Your task to perform on an android device: turn off notifications settings in the gmail app Image 0: 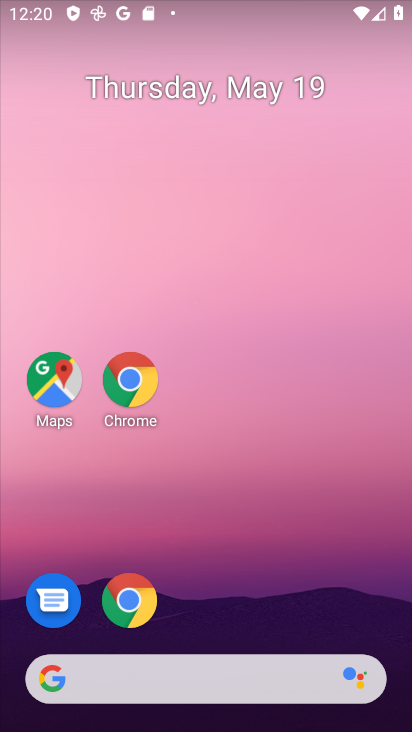
Step 0: drag from (322, 557) to (174, 40)
Your task to perform on an android device: turn off notifications settings in the gmail app Image 1: 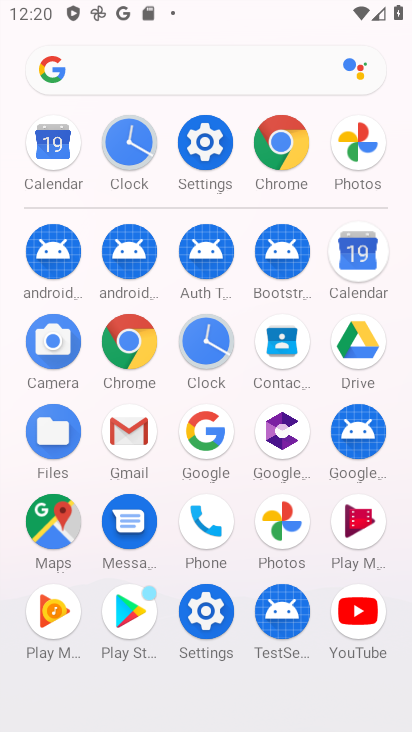
Step 1: click (119, 433)
Your task to perform on an android device: turn off notifications settings in the gmail app Image 2: 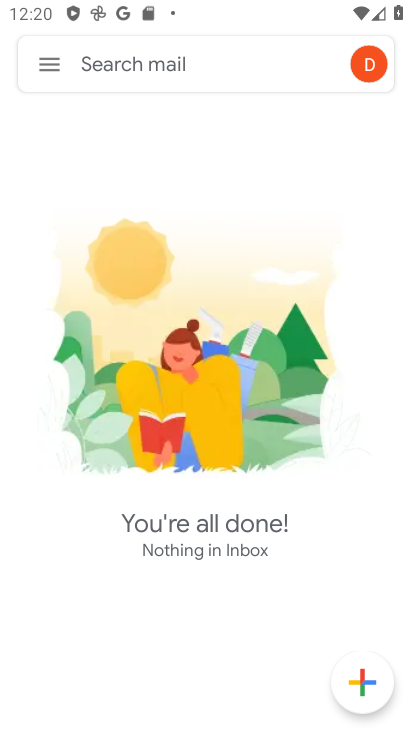
Step 2: click (58, 68)
Your task to perform on an android device: turn off notifications settings in the gmail app Image 3: 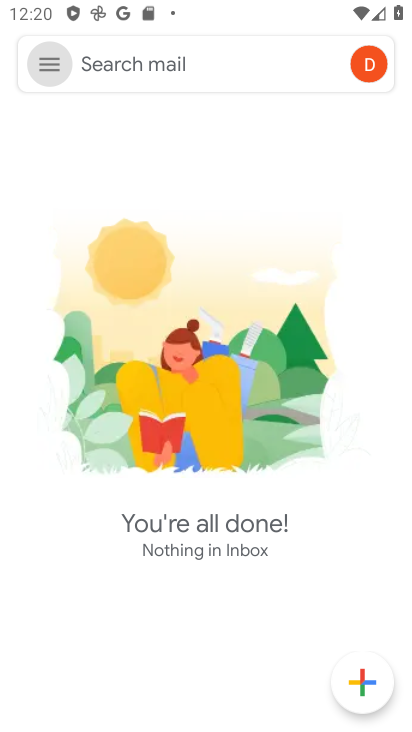
Step 3: click (54, 74)
Your task to perform on an android device: turn off notifications settings in the gmail app Image 4: 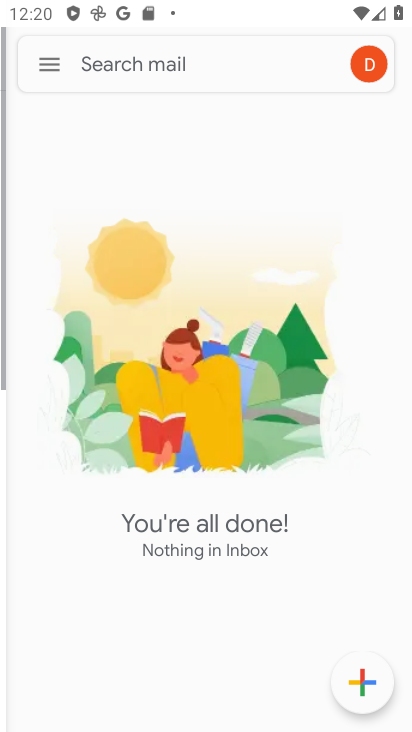
Step 4: click (54, 74)
Your task to perform on an android device: turn off notifications settings in the gmail app Image 5: 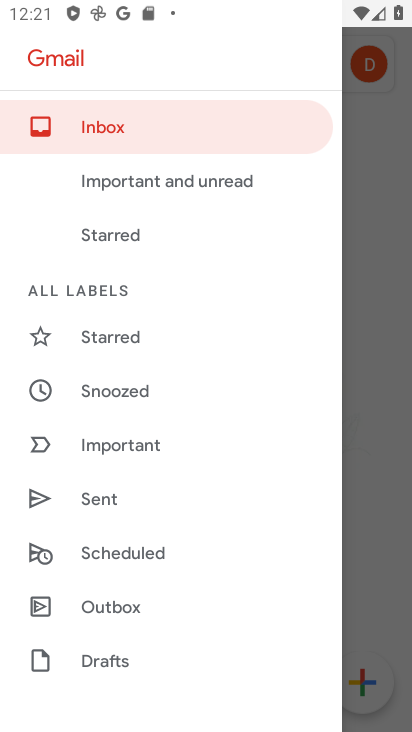
Step 5: drag from (174, 598) to (138, 277)
Your task to perform on an android device: turn off notifications settings in the gmail app Image 6: 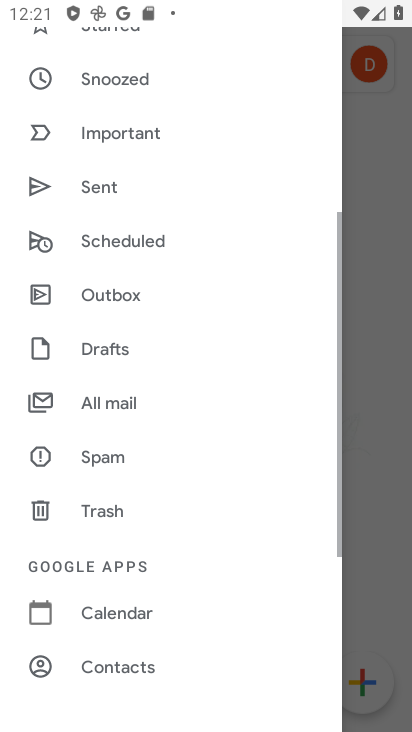
Step 6: drag from (220, 553) to (199, 152)
Your task to perform on an android device: turn off notifications settings in the gmail app Image 7: 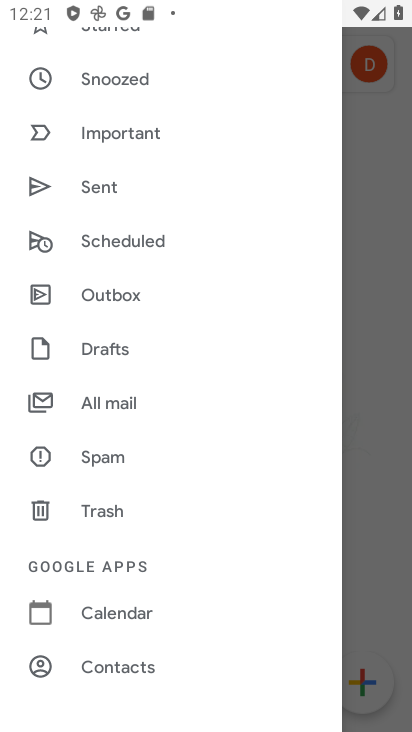
Step 7: drag from (144, 592) to (143, 159)
Your task to perform on an android device: turn off notifications settings in the gmail app Image 8: 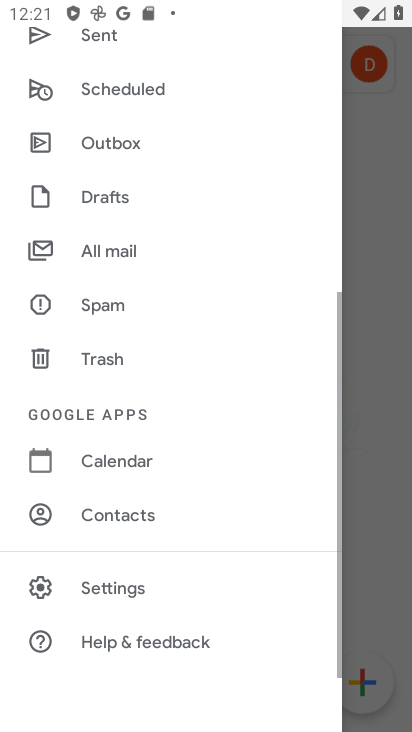
Step 8: click (105, 584)
Your task to perform on an android device: turn off notifications settings in the gmail app Image 9: 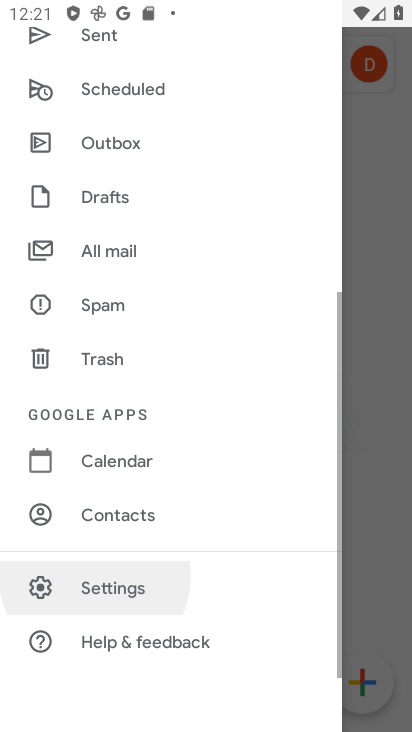
Step 9: click (110, 584)
Your task to perform on an android device: turn off notifications settings in the gmail app Image 10: 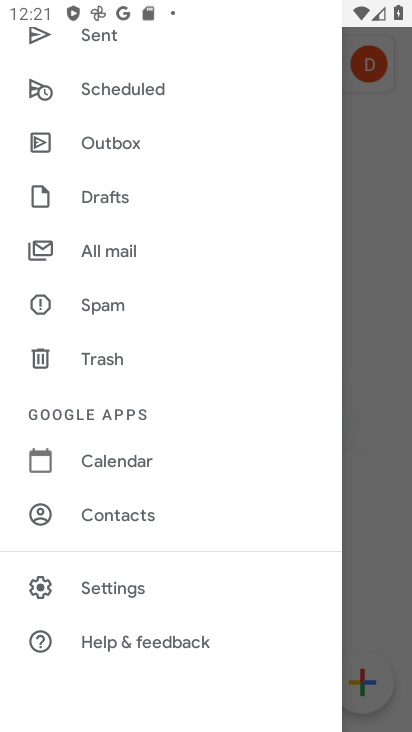
Step 10: click (115, 582)
Your task to perform on an android device: turn off notifications settings in the gmail app Image 11: 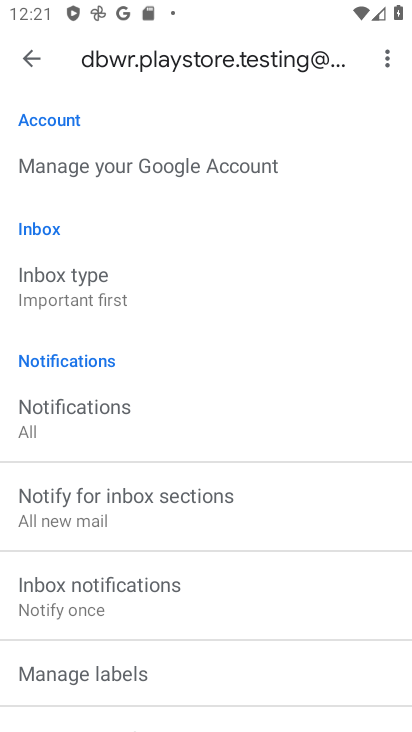
Step 11: click (60, 418)
Your task to perform on an android device: turn off notifications settings in the gmail app Image 12: 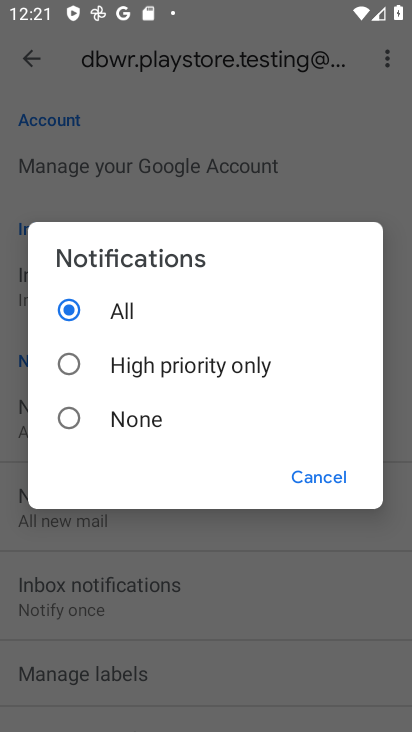
Step 12: click (61, 363)
Your task to perform on an android device: turn off notifications settings in the gmail app Image 13: 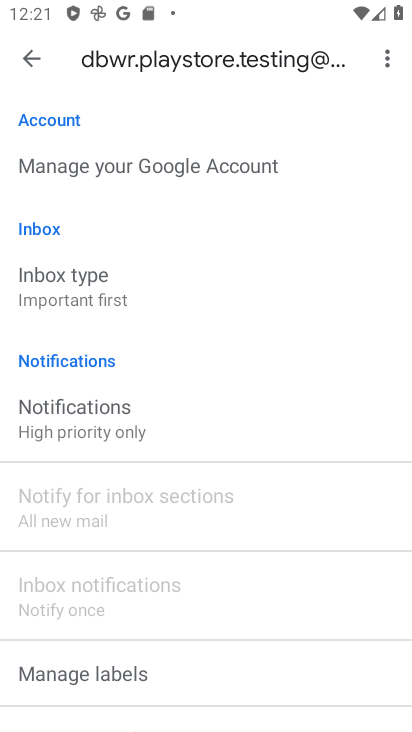
Step 13: click (56, 412)
Your task to perform on an android device: turn off notifications settings in the gmail app Image 14: 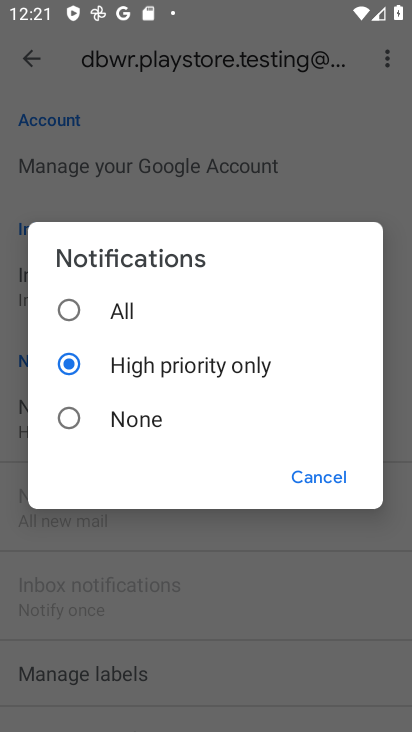
Step 14: click (67, 411)
Your task to perform on an android device: turn off notifications settings in the gmail app Image 15: 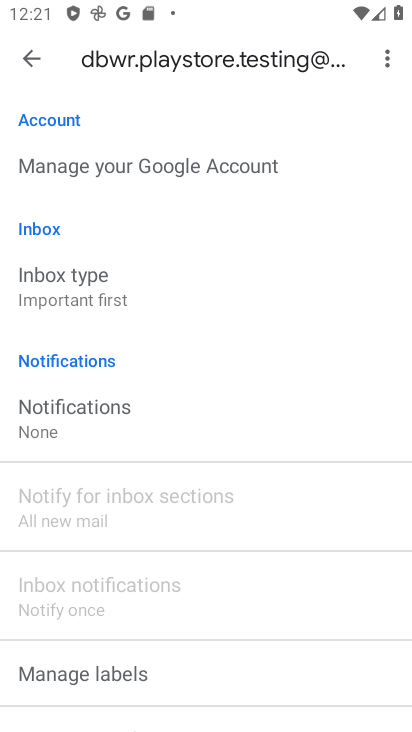
Step 15: task complete